Your task to perform on an android device: Clear the cart on bestbuy.com. Add "razer nari" to the cart on bestbuy.com Image 0: 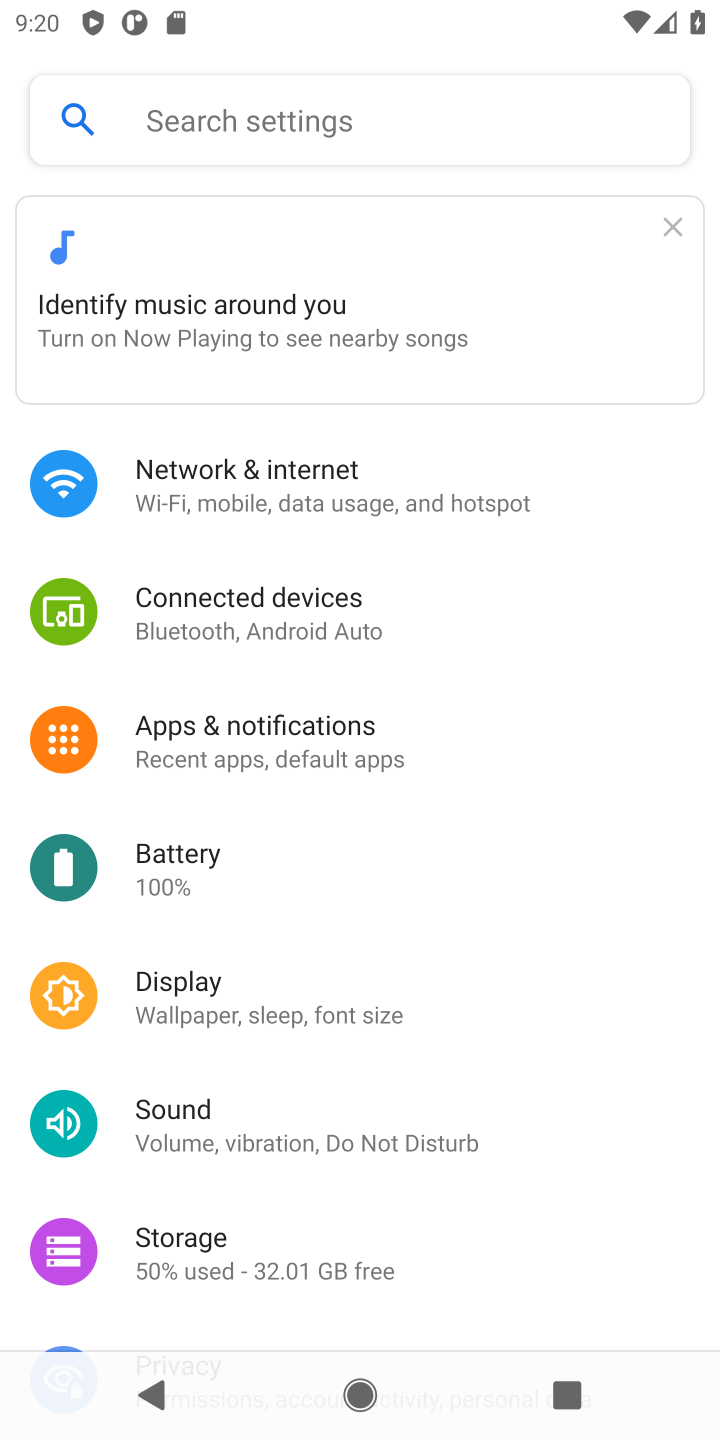
Step 0: press home button
Your task to perform on an android device: Clear the cart on bestbuy.com. Add "razer nari" to the cart on bestbuy.com Image 1: 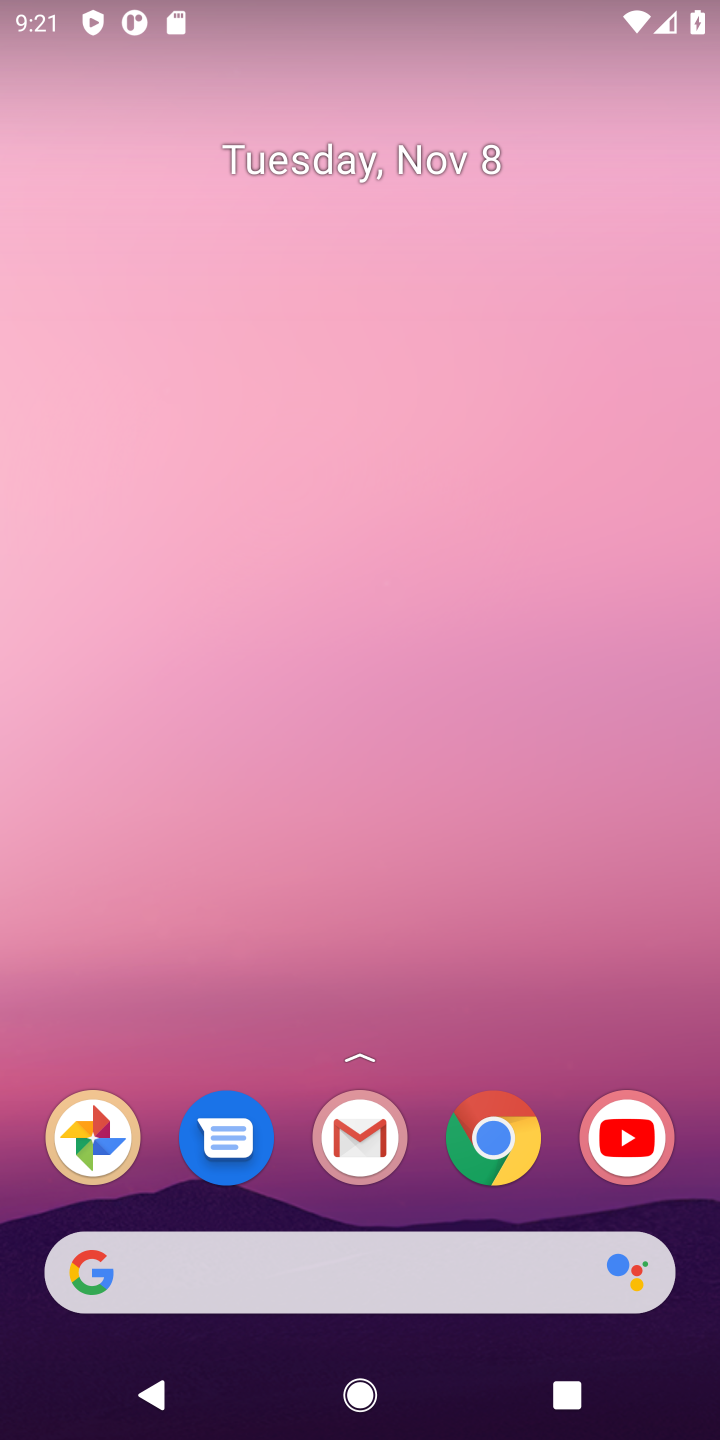
Step 1: click (502, 1135)
Your task to perform on an android device: Clear the cart on bestbuy.com. Add "razer nari" to the cart on bestbuy.com Image 2: 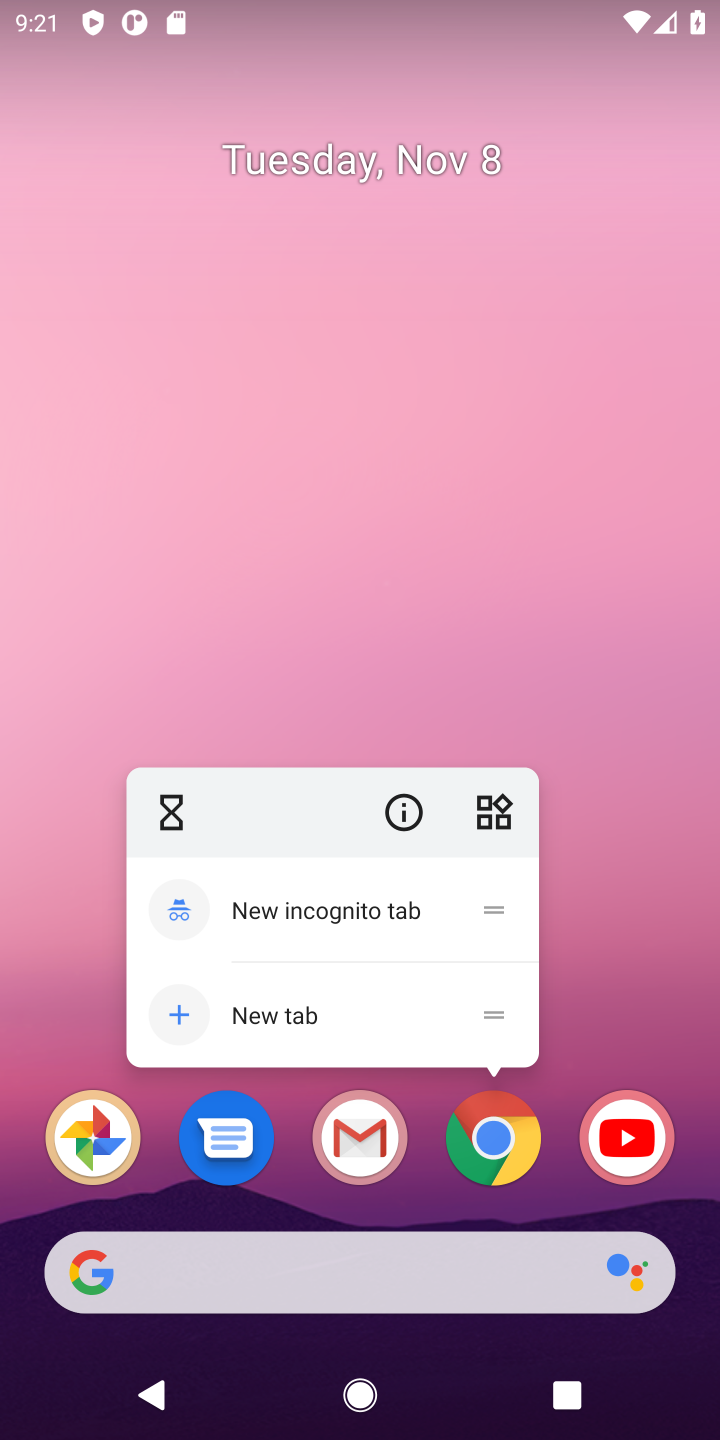
Step 2: click (502, 1138)
Your task to perform on an android device: Clear the cart on bestbuy.com. Add "razer nari" to the cart on bestbuy.com Image 3: 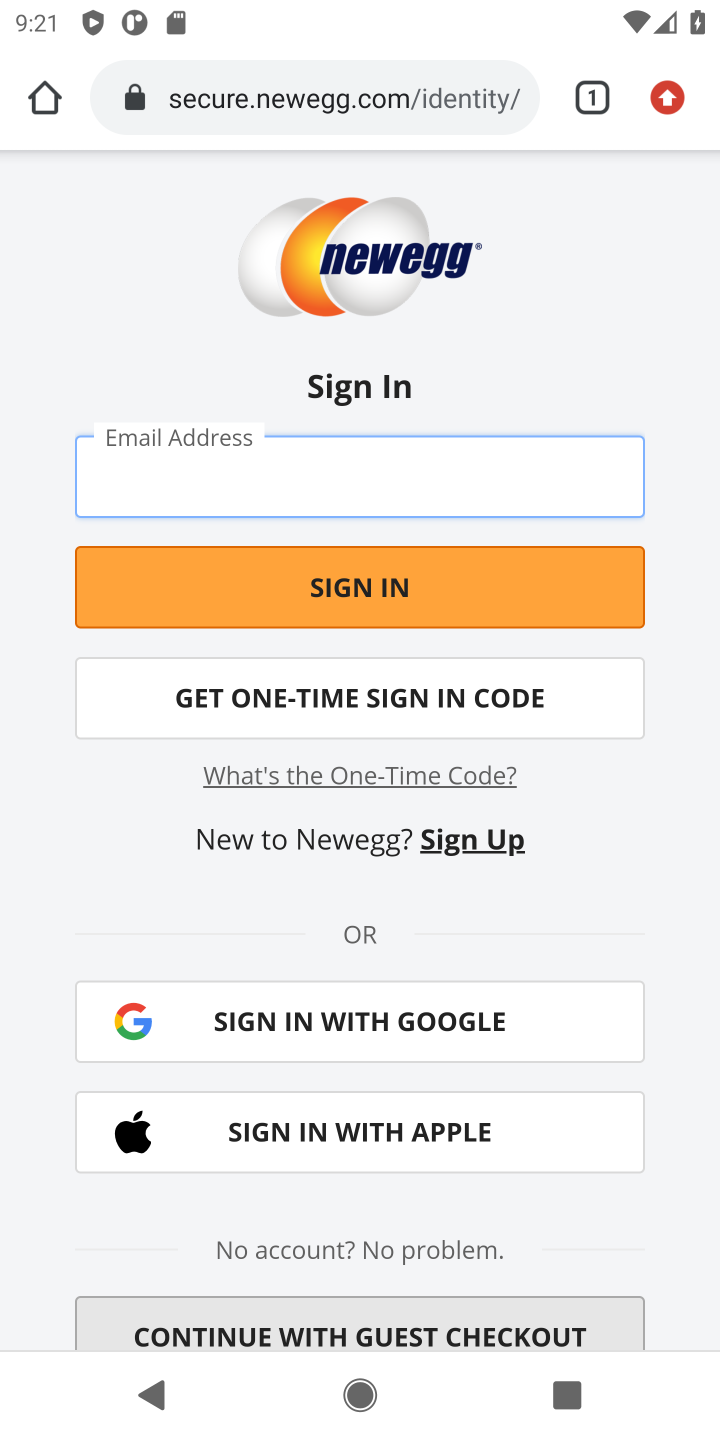
Step 3: click (369, 99)
Your task to perform on an android device: Clear the cart on bestbuy.com. Add "razer nari" to the cart on bestbuy.com Image 4: 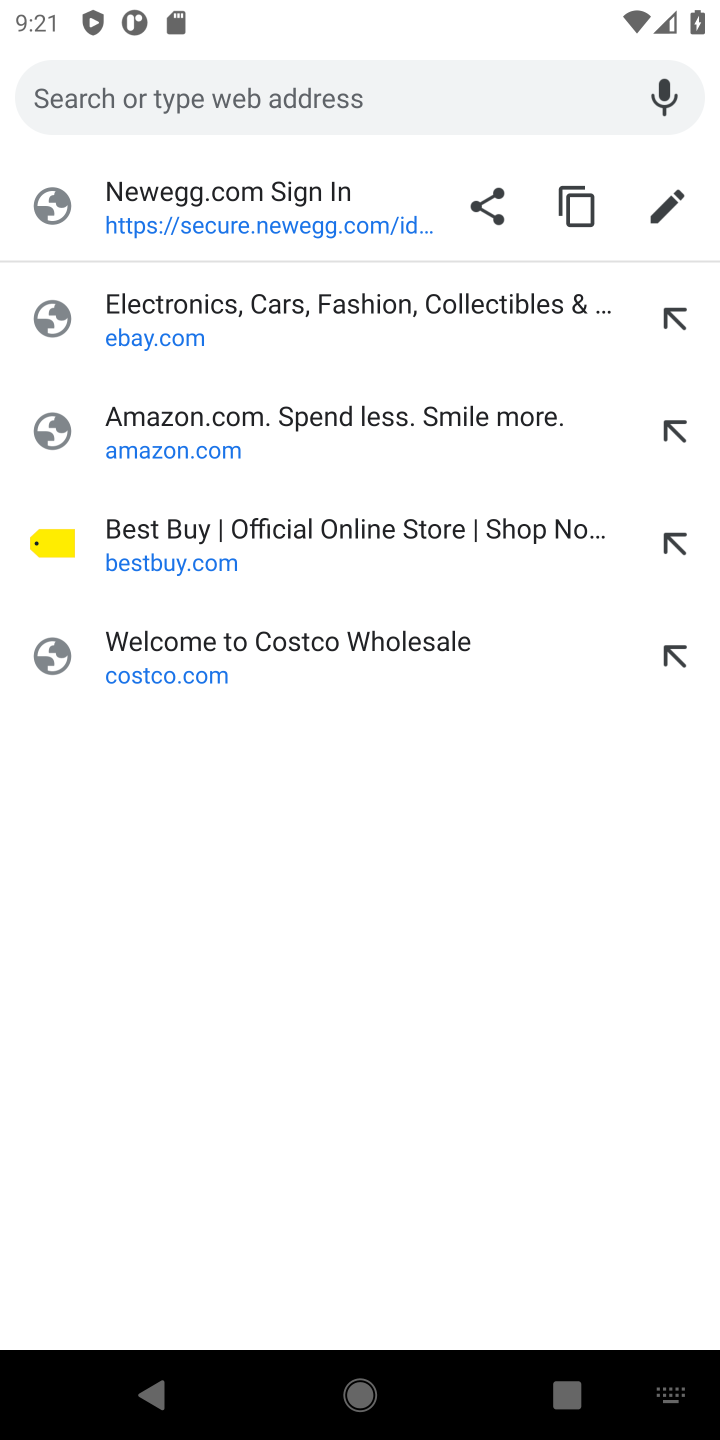
Step 4: click (171, 556)
Your task to perform on an android device: Clear the cart on bestbuy.com. Add "razer nari" to the cart on bestbuy.com Image 5: 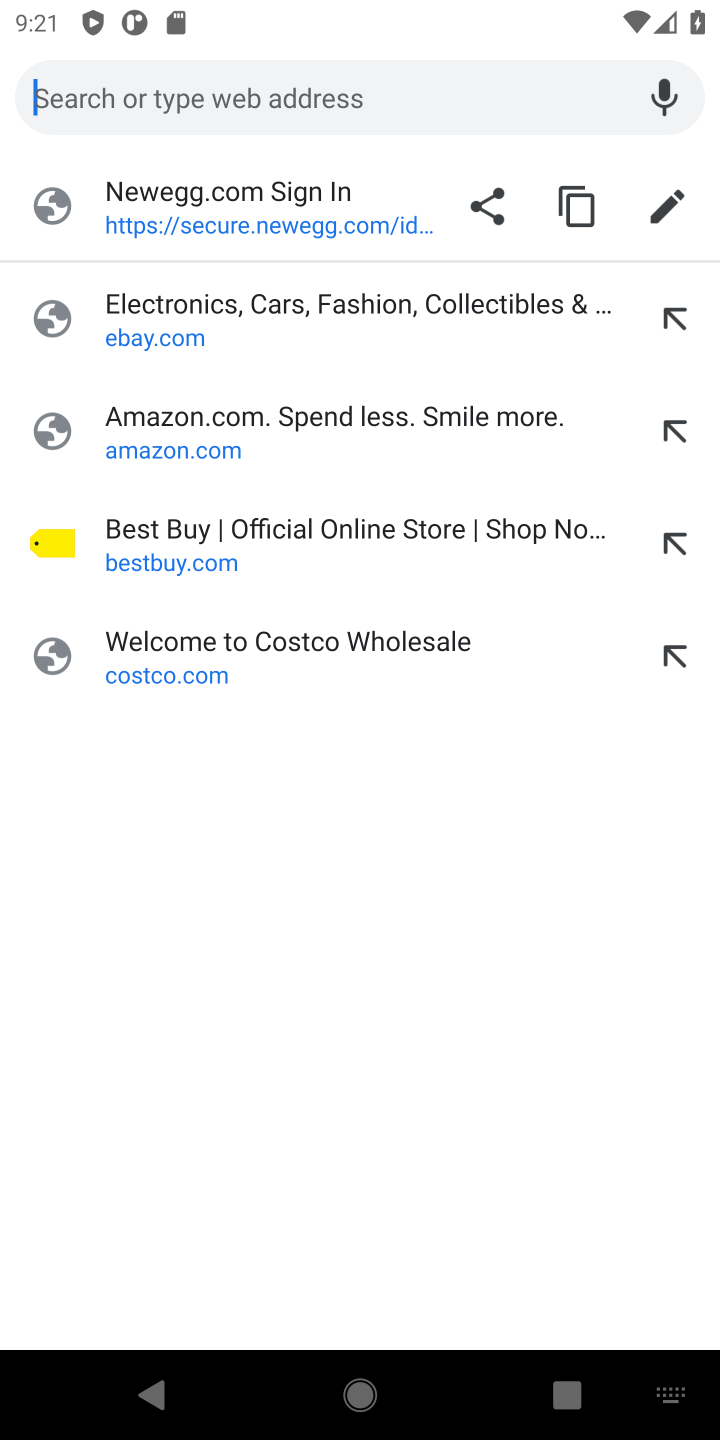
Step 5: click (158, 561)
Your task to perform on an android device: Clear the cart on bestbuy.com. Add "razer nari" to the cart on bestbuy.com Image 6: 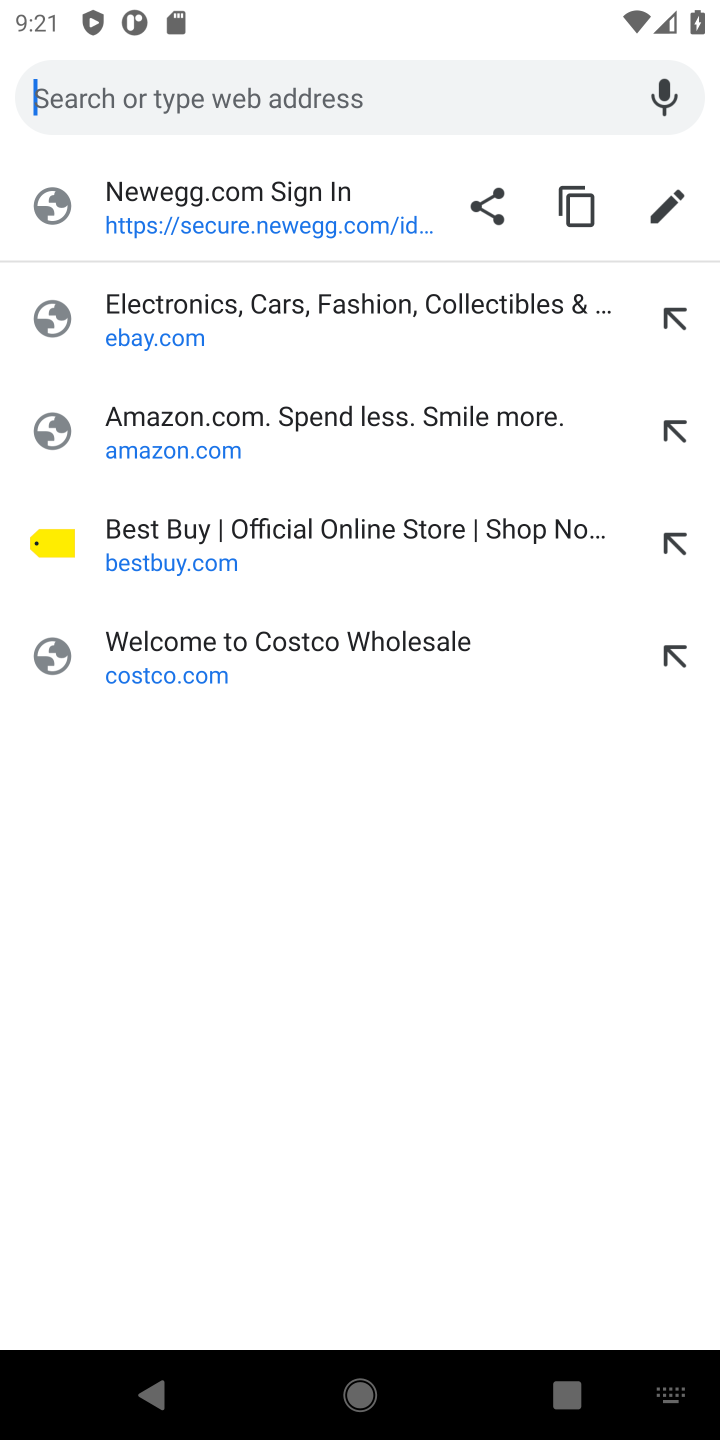
Step 6: click (162, 569)
Your task to perform on an android device: Clear the cart on bestbuy.com. Add "razer nari" to the cart on bestbuy.com Image 7: 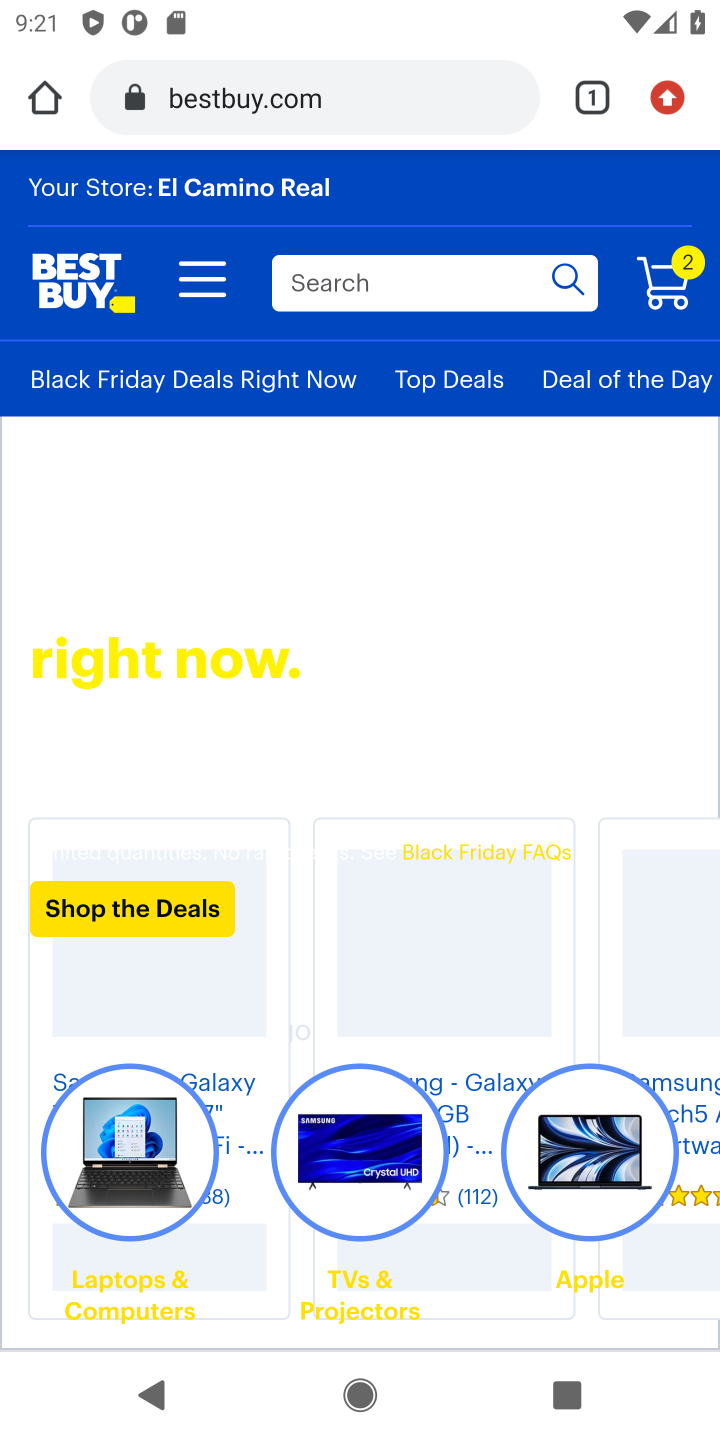
Step 7: click (662, 273)
Your task to perform on an android device: Clear the cart on bestbuy.com. Add "razer nari" to the cart on bestbuy.com Image 8: 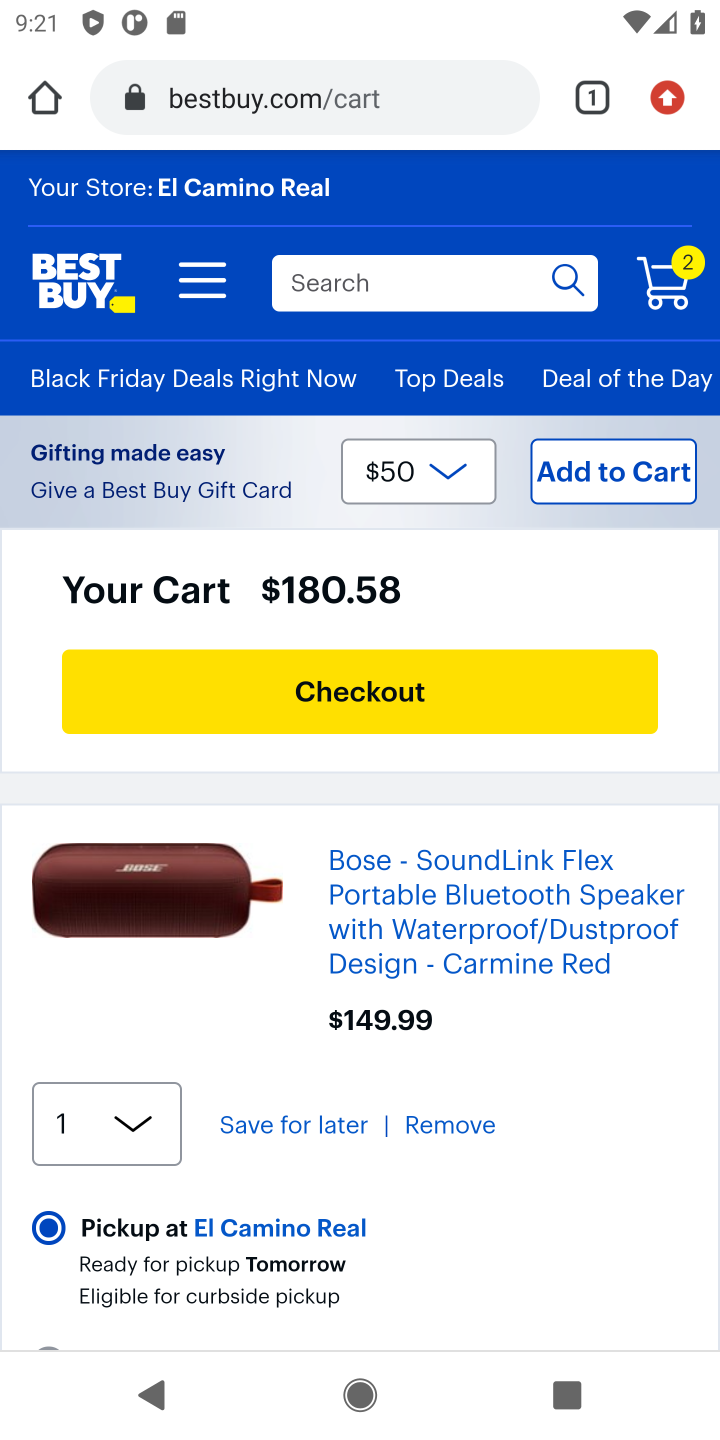
Step 8: drag from (413, 1096) to (599, 575)
Your task to perform on an android device: Clear the cart on bestbuy.com. Add "razer nari" to the cart on bestbuy.com Image 9: 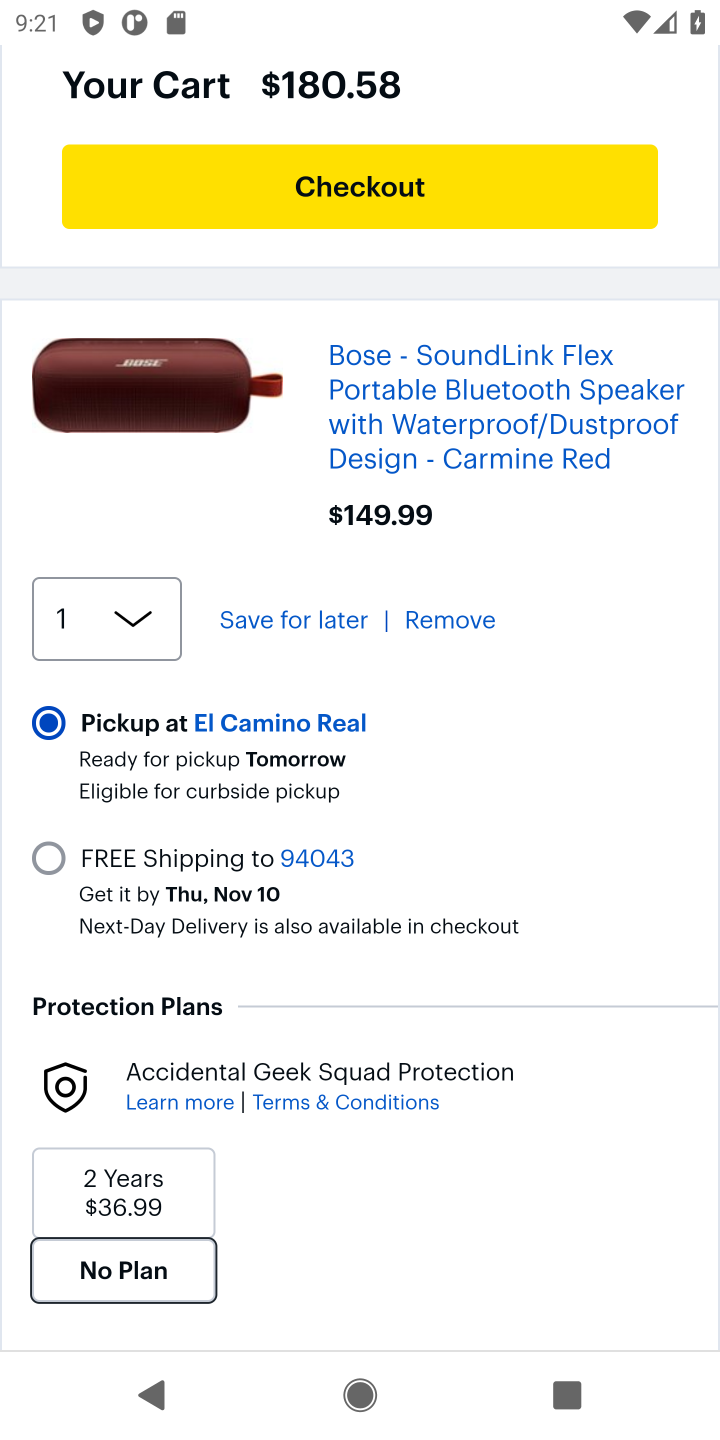
Step 9: click (473, 613)
Your task to perform on an android device: Clear the cart on bestbuy.com. Add "razer nari" to the cart on bestbuy.com Image 10: 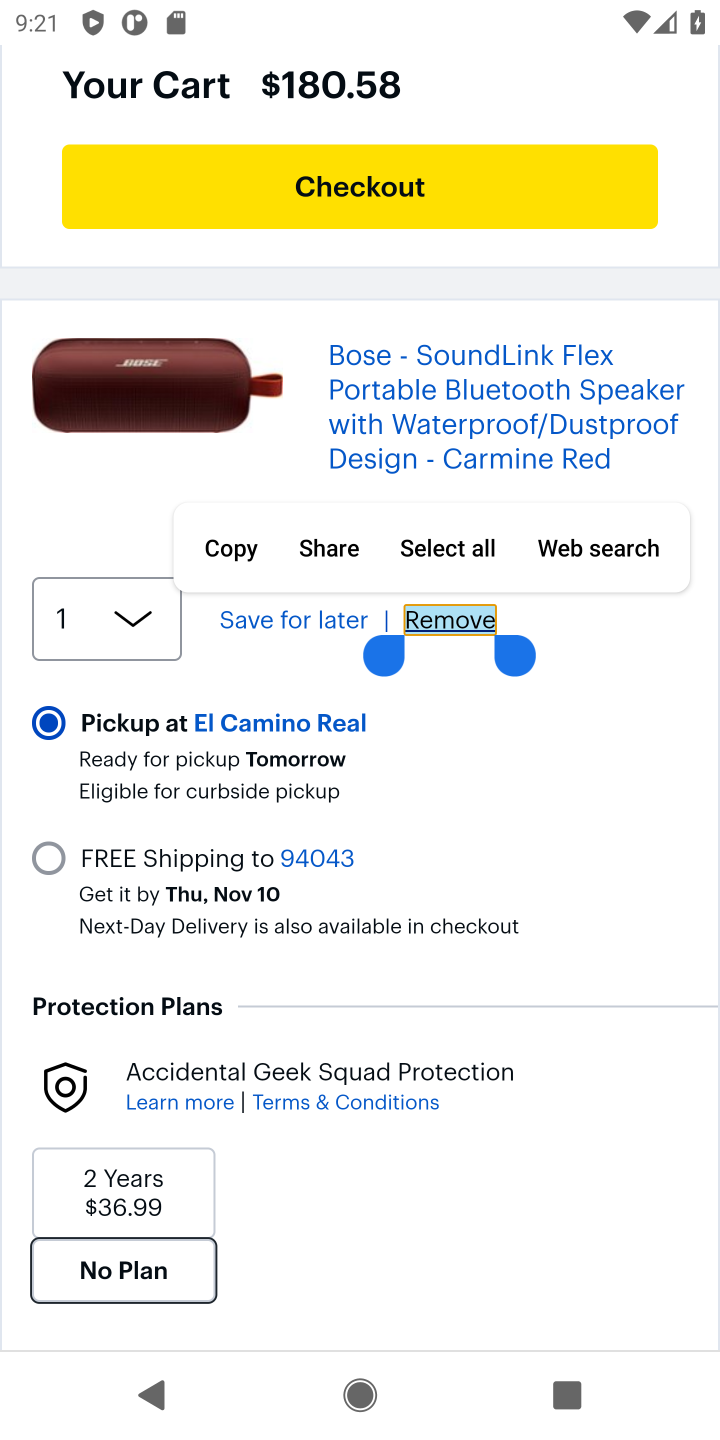
Step 10: click (437, 616)
Your task to perform on an android device: Clear the cart on bestbuy.com. Add "razer nari" to the cart on bestbuy.com Image 11: 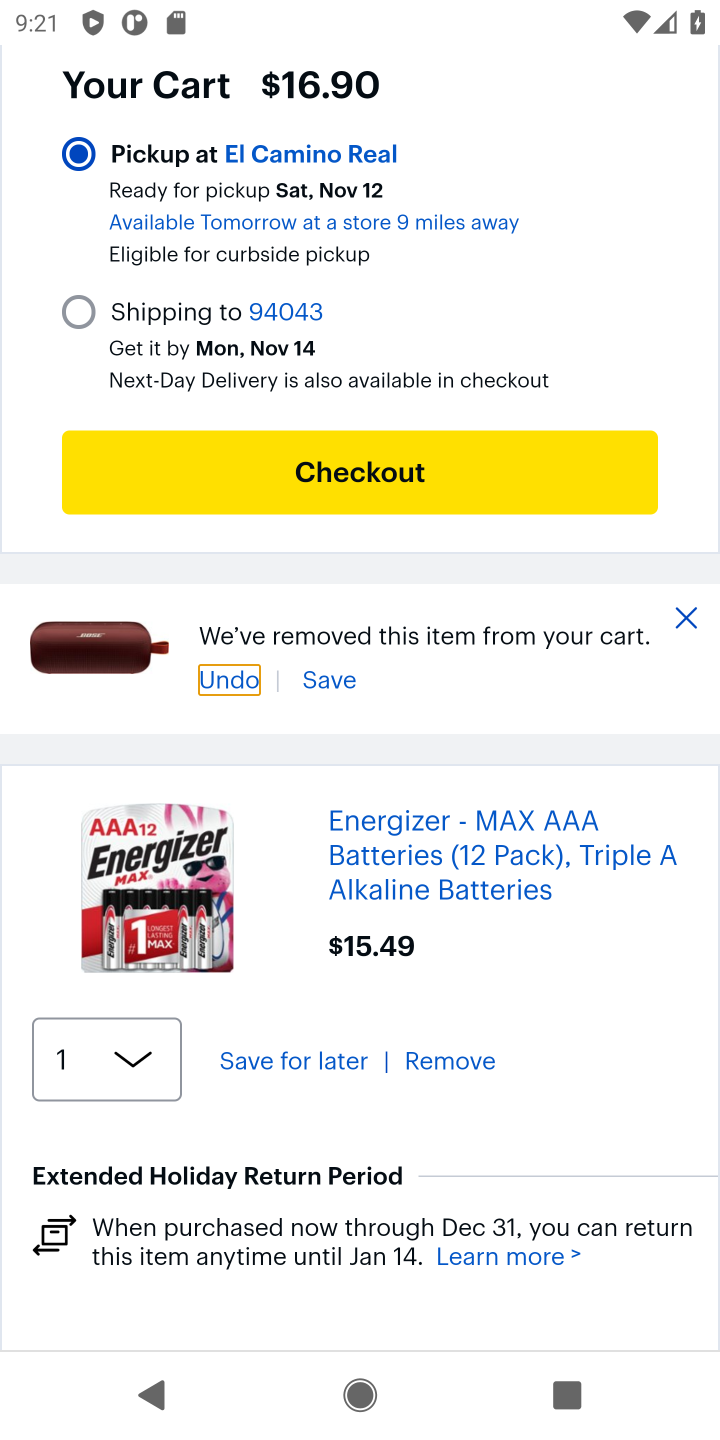
Step 11: click (457, 1054)
Your task to perform on an android device: Clear the cart on bestbuy.com. Add "razer nari" to the cart on bestbuy.com Image 12: 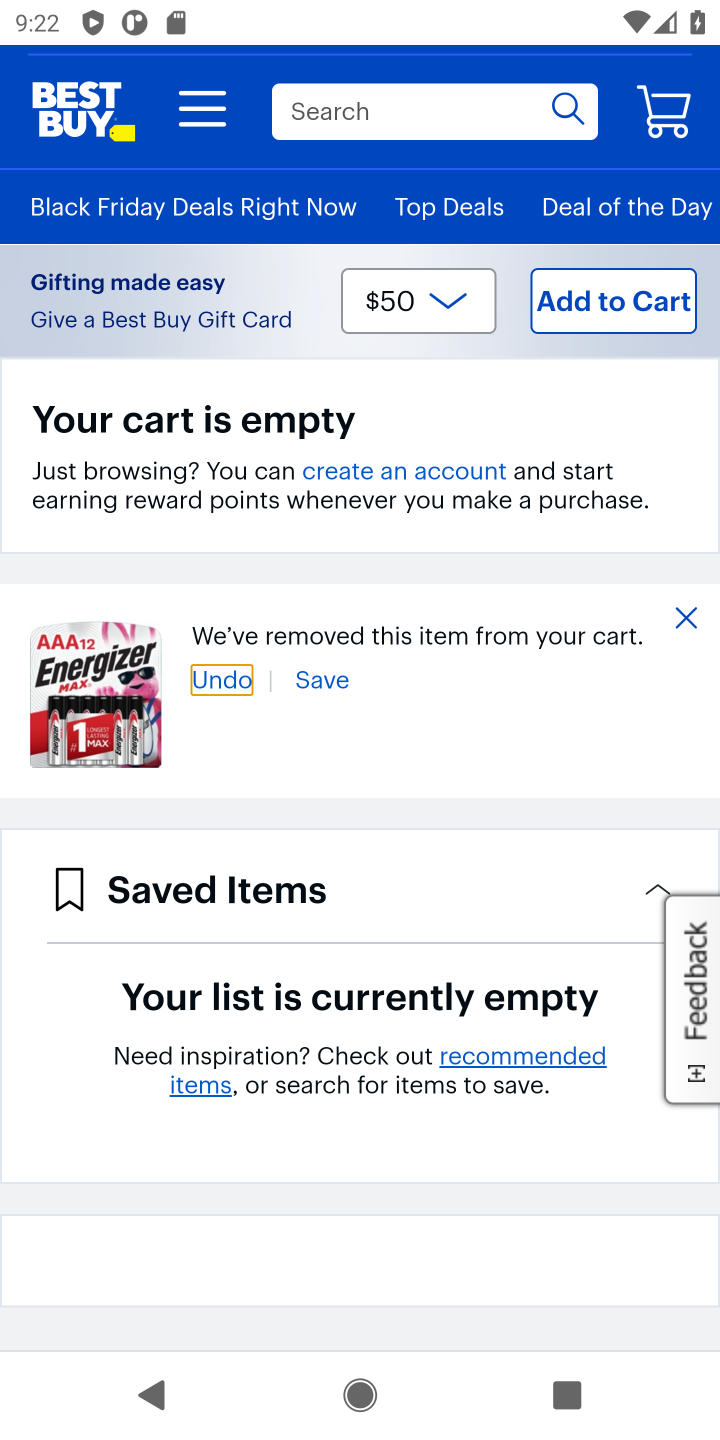
Step 12: click (385, 111)
Your task to perform on an android device: Clear the cart on bestbuy.com. Add "razer nari" to the cart on bestbuy.com Image 13: 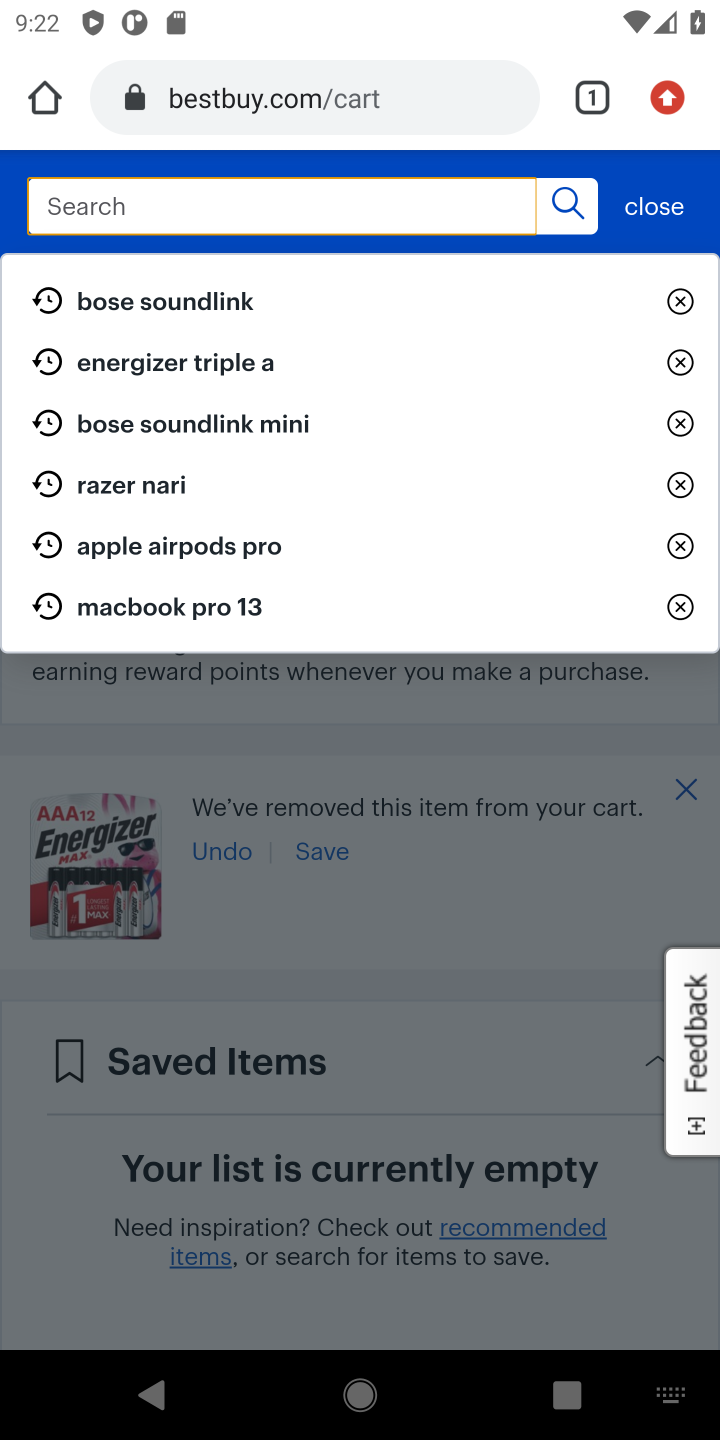
Step 13: type "razer nari"
Your task to perform on an android device: Clear the cart on bestbuy.com. Add "razer nari" to the cart on bestbuy.com Image 14: 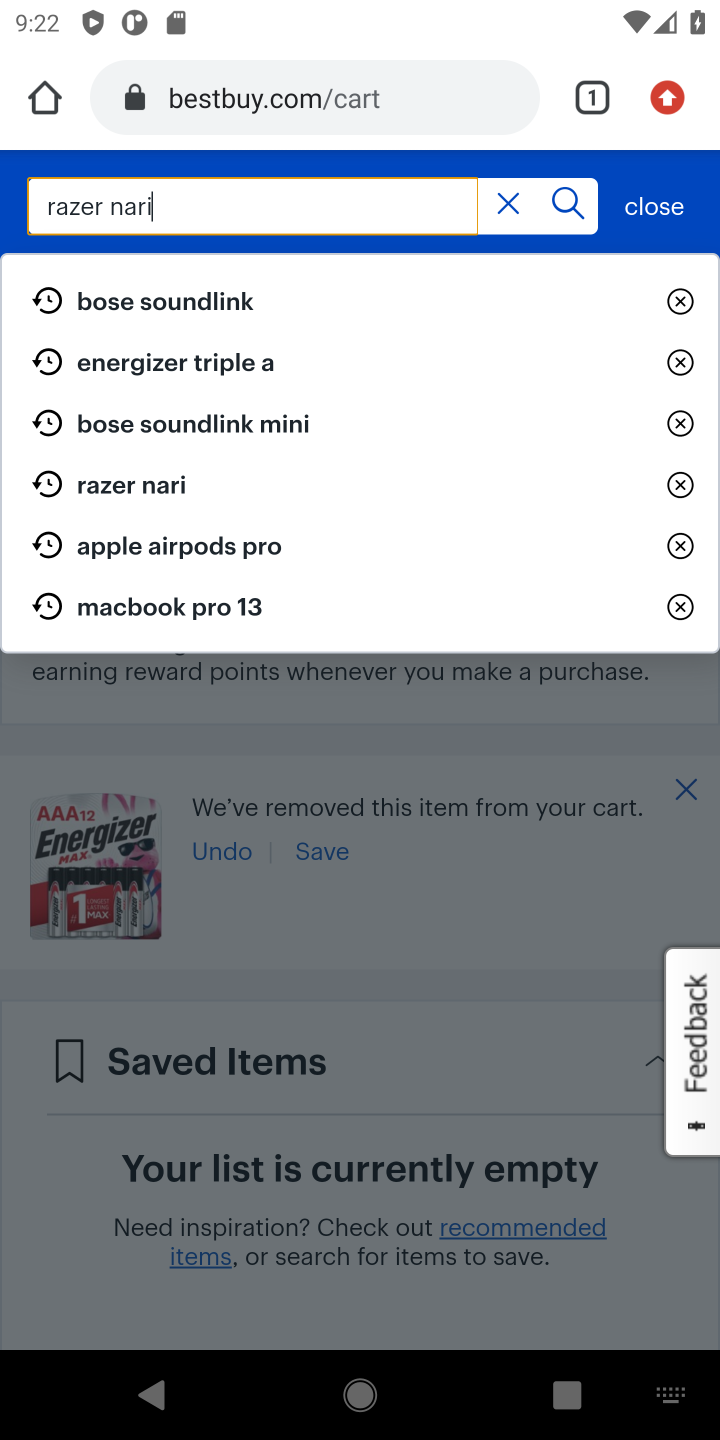
Step 14: press enter
Your task to perform on an android device: Clear the cart on bestbuy.com. Add "razer nari" to the cart on bestbuy.com Image 15: 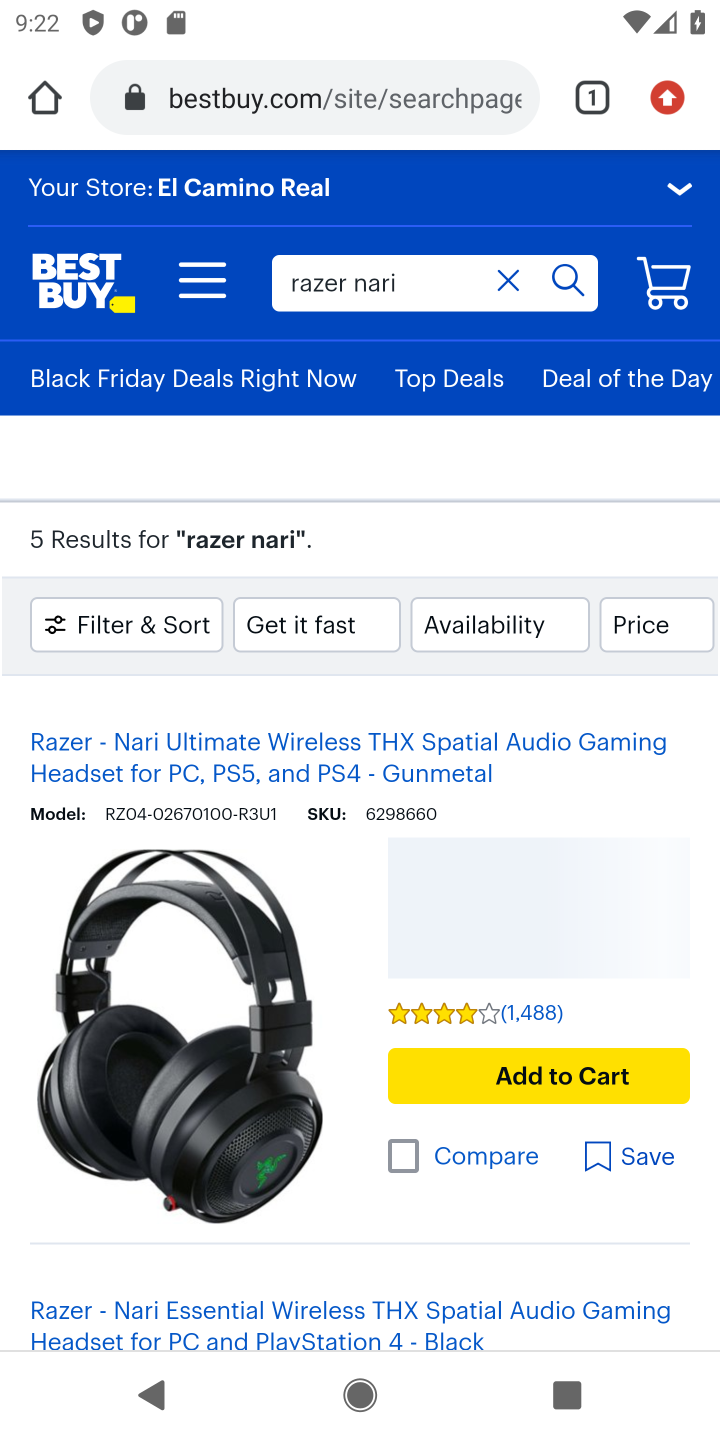
Step 15: drag from (466, 1099) to (581, 598)
Your task to perform on an android device: Clear the cart on bestbuy.com. Add "razer nari" to the cart on bestbuy.com Image 16: 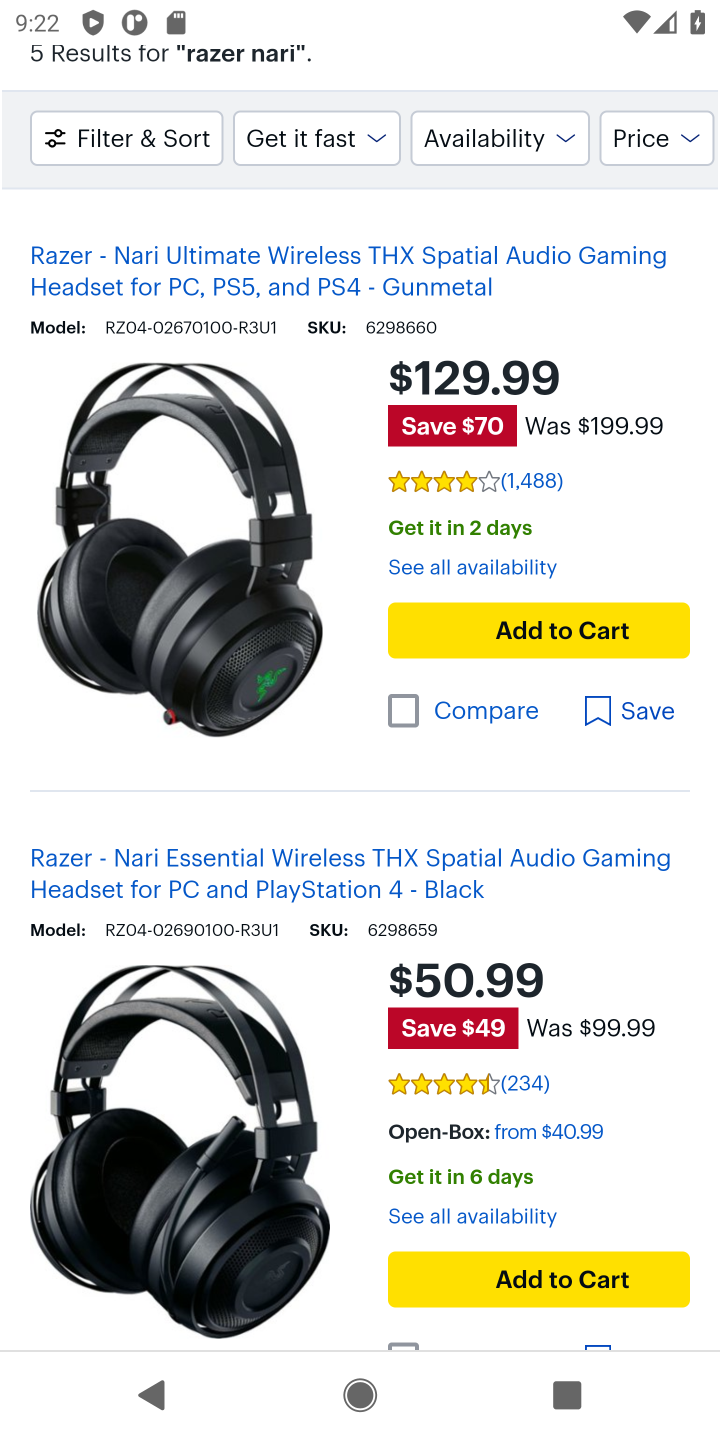
Step 16: click (545, 623)
Your task to perform on an android device: Clear the cart on bestbuy.com. Add "razer nari" to the cart on bestbuy.com Image 17: 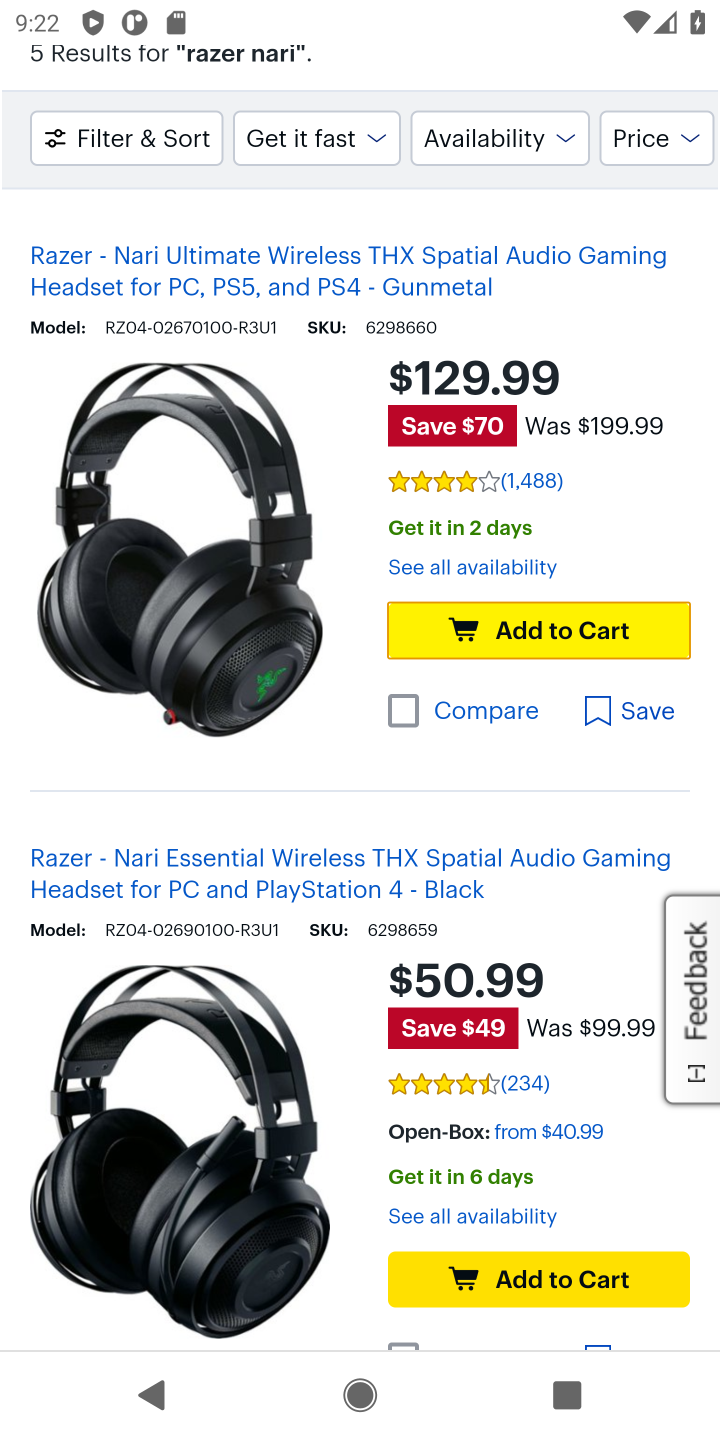
Step 17: click (568, 625)
Your task to perform on an android device: Clear the cart on bestbuy.com. Add "razer nari" to the cart on bestbuy.com Image 18: 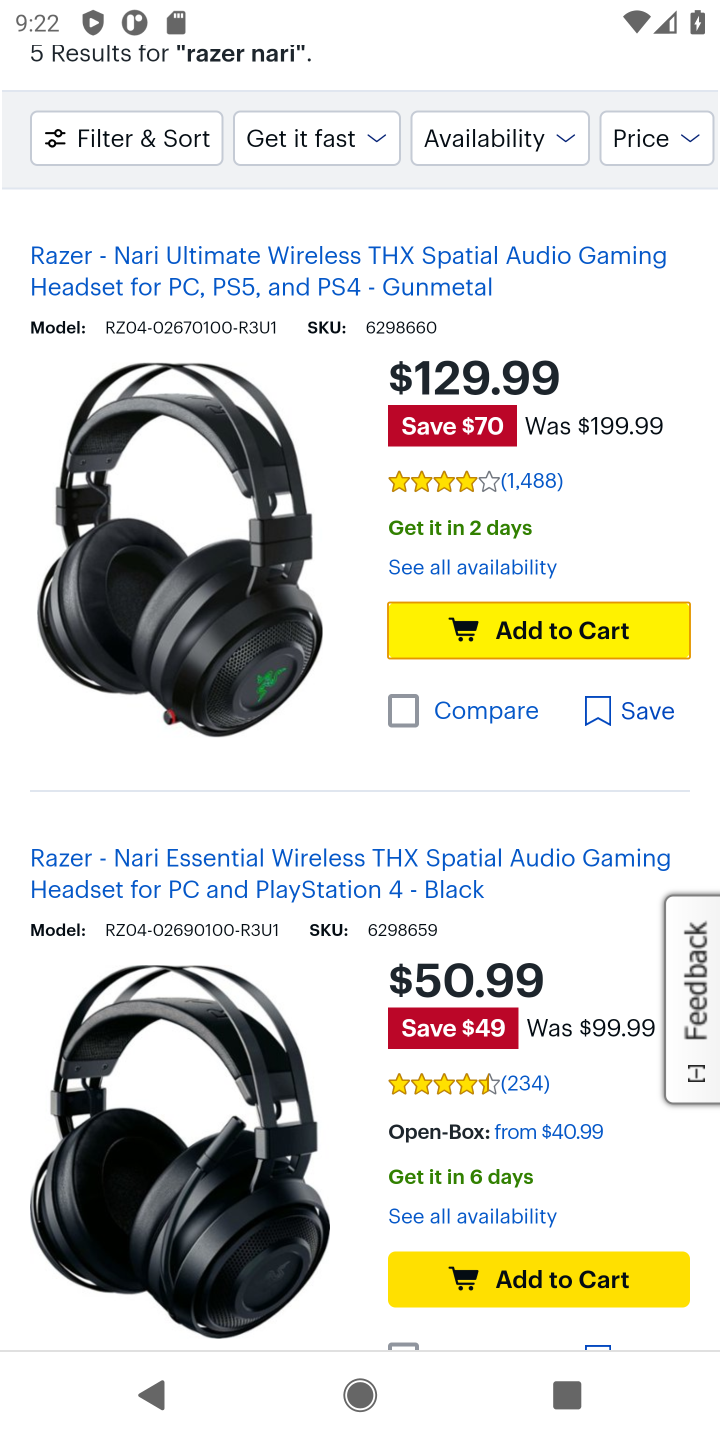
Step 18: click (557, 627)
Your task to perform on an android device: Clear the cart on bestbuy.com. Add "razer nari" to the cart on bestbuy.com Image 19: 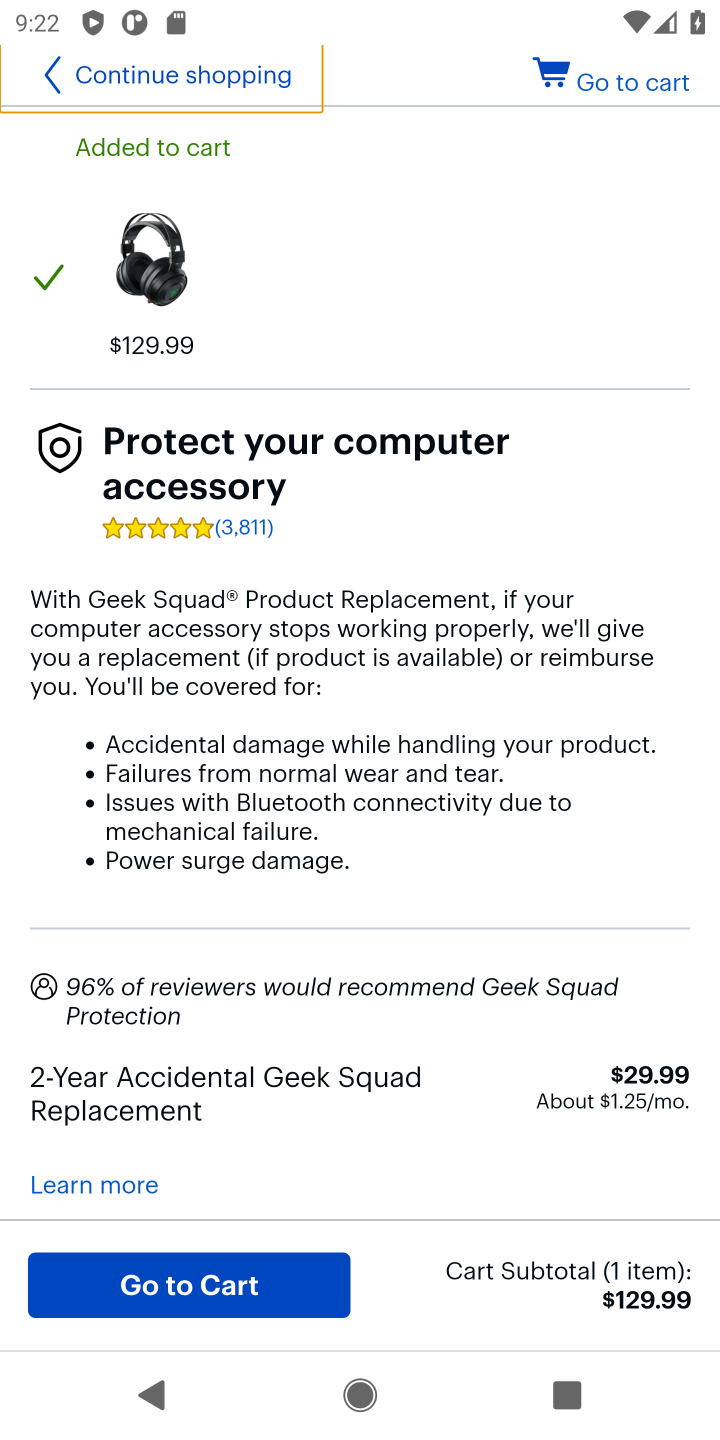
Step 19: click (633, 79)
Your task to perform on an android device: Clear the cart on bestbuy.com. Add "razer nari" to the cart on bestbuy.com Image 20: 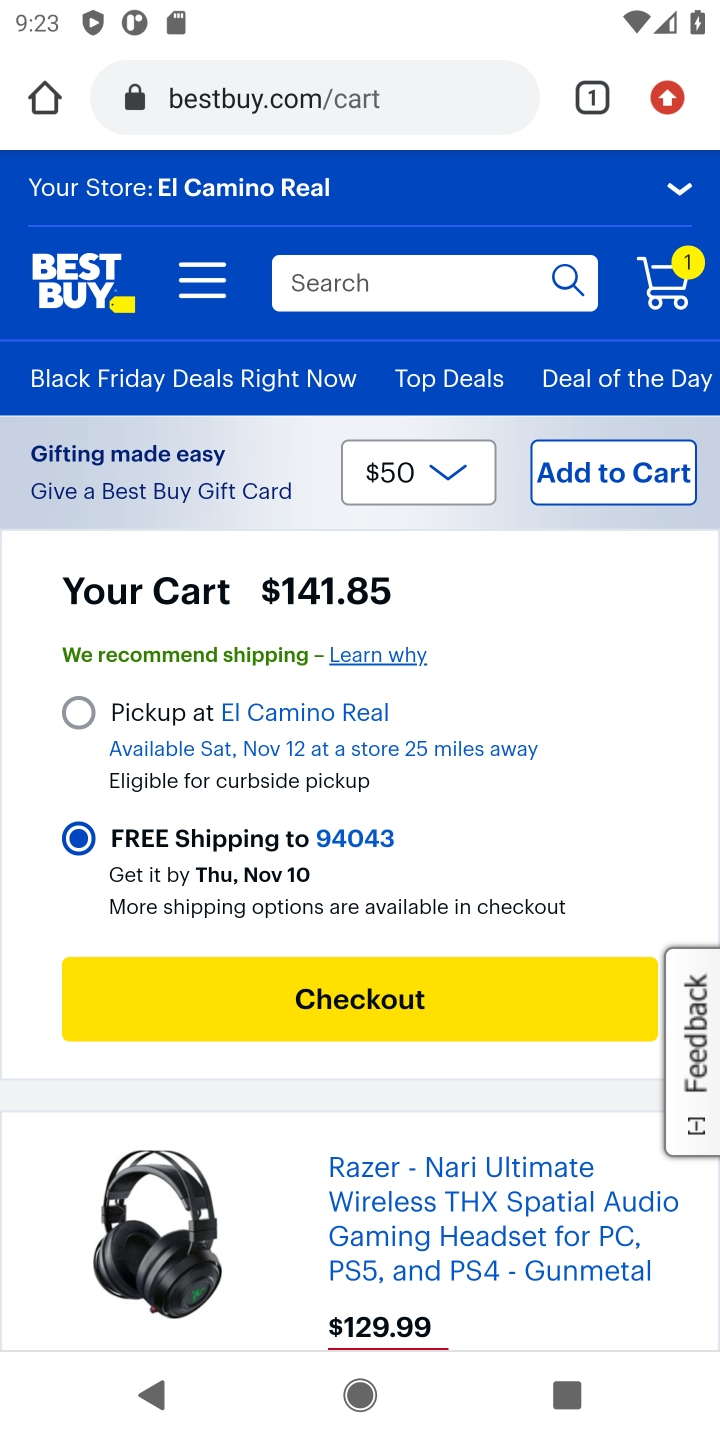
Step 20: click (665, 290)
Your task to perform on an android device: Clear the cart on bestbuy.com. Add "razer nari" to the cart on bestbuy.com Image 21: 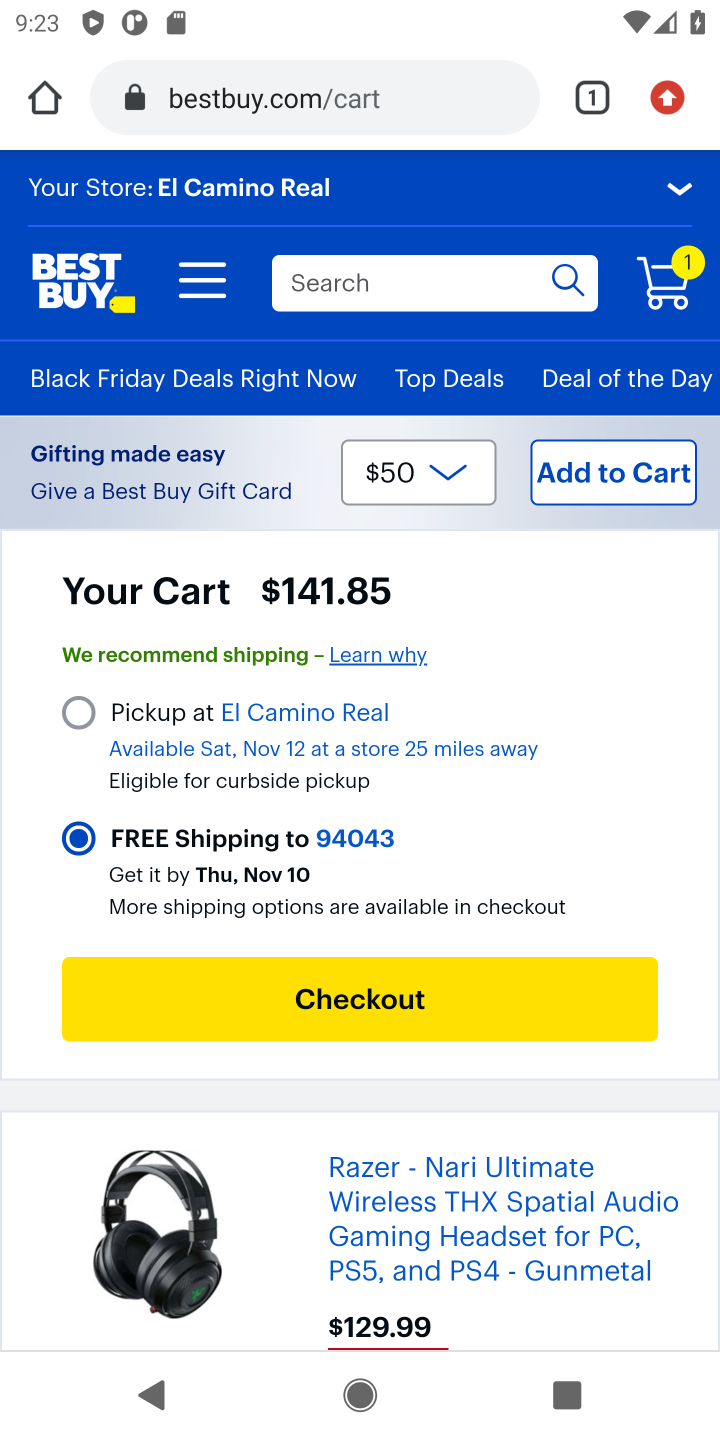
Step 21: task complete